Your task to perform on an android device: open device folders in google photos Image 0: 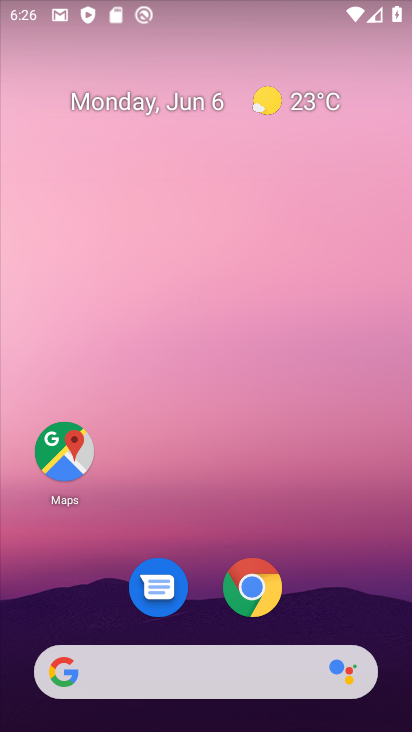
Step 0: drag from (375, 464) to (265, 40)
Your task to perform on an android device: open device folders in google photos Image 1: 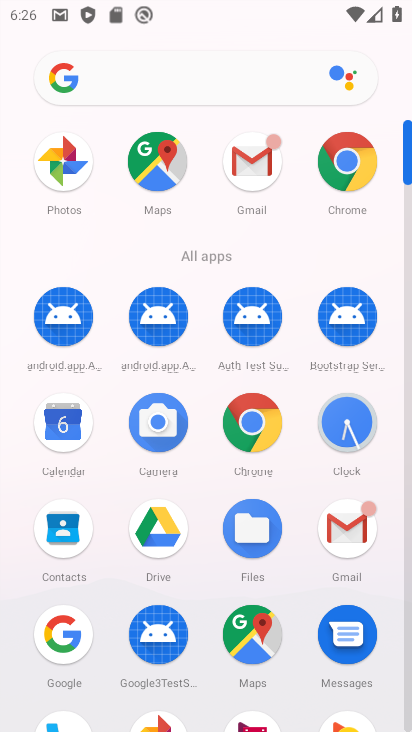
Step 1: drag from (211, 686) to (218, 229)
Your task to perform on an android device: open device folders in google photos Image 2: 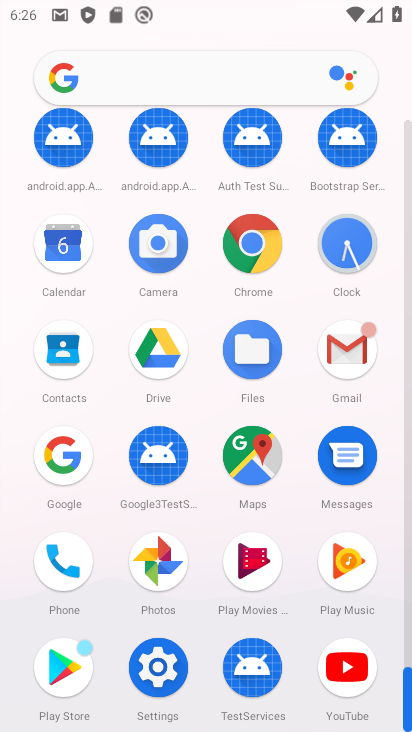
Step 2: click (172, 564)
Your task to perform on an android device: open device folders in google photos Image 3: 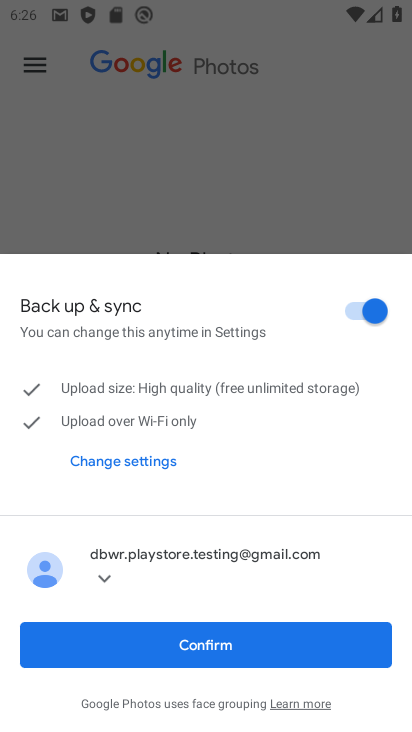
Step 3: click (193, 644)
Your task to perform on an android device: open device folders in google photos Image 4: 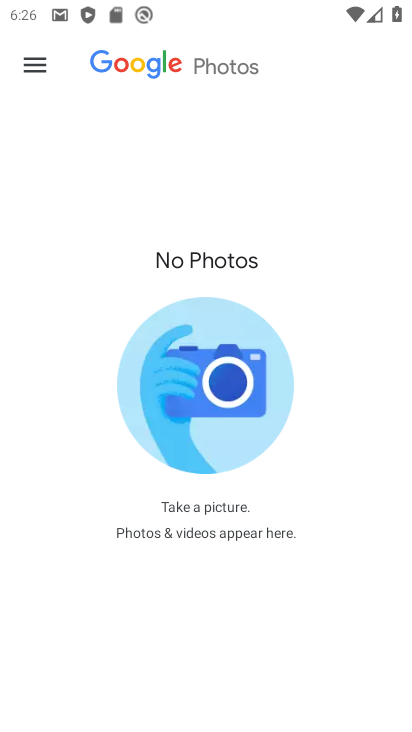
Step 4: click (32, 67)
Your task to perform on an android device: open device folders in google photos Image 5: 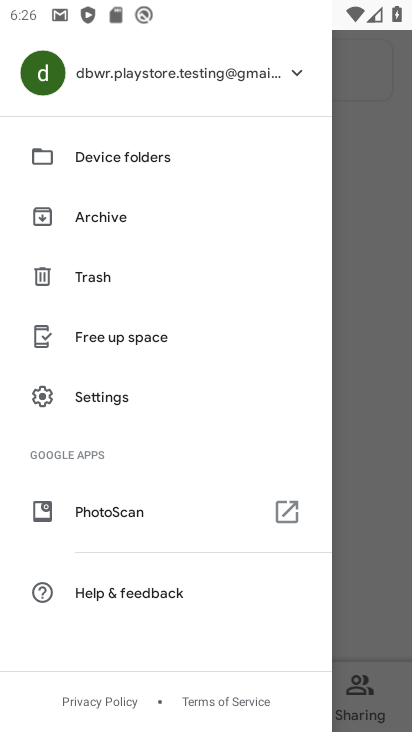
Step 5: click (175, 164)
Your task to perform on an android device: open device folders in google photos Image 6: 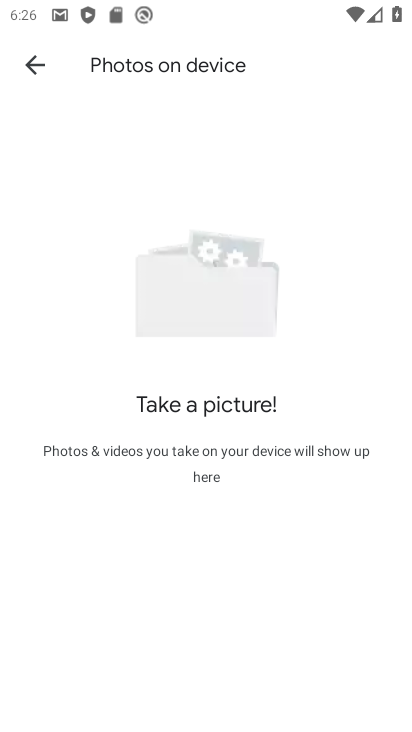
Step 6: task complete